Your task to perform on an android device: toggle translation in the chrome app Image 0: 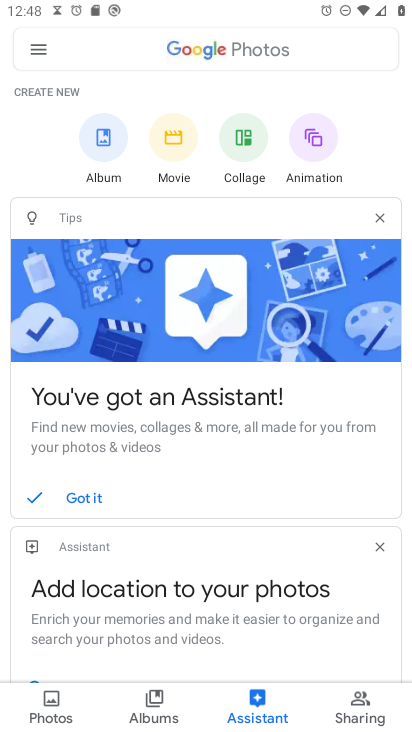
Step 0: press home button
Your task to perform on an android device: toggle translation in the chrome app Image 1: 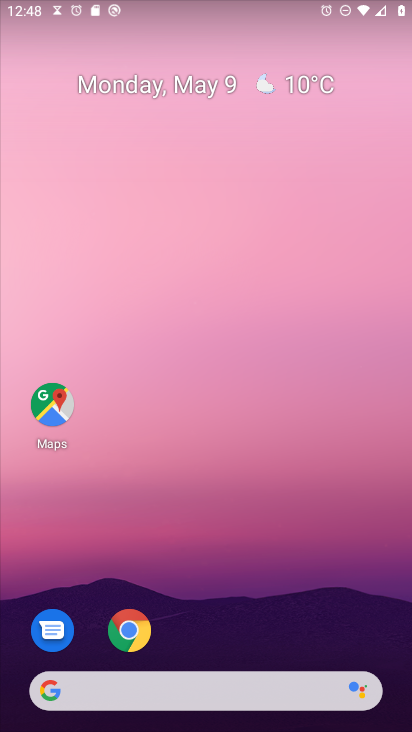
Step 1: drag from (177, 689) to (343, 218)
Your task to perform on an android device: toggle translation in the chrome app Image 2: 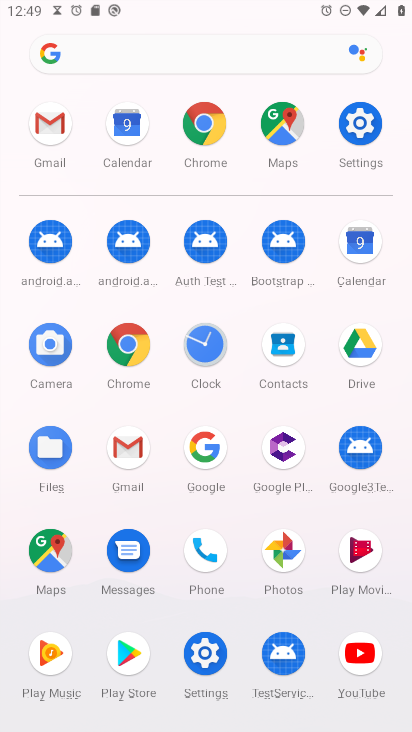
Step 2: click (142, 351)
Your task to perform on an android device: toggle translation in the chrome app Image 3: 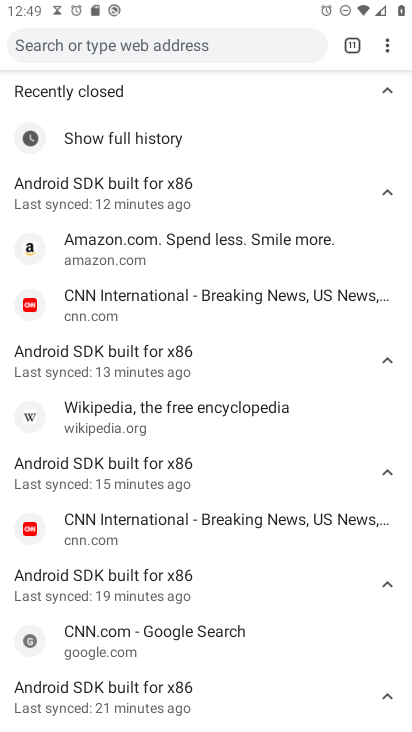
Step 3: drag from (384, 48) to (234, 390)
Your task to perform on an android device: toggle translation in the chrome app Image 4: 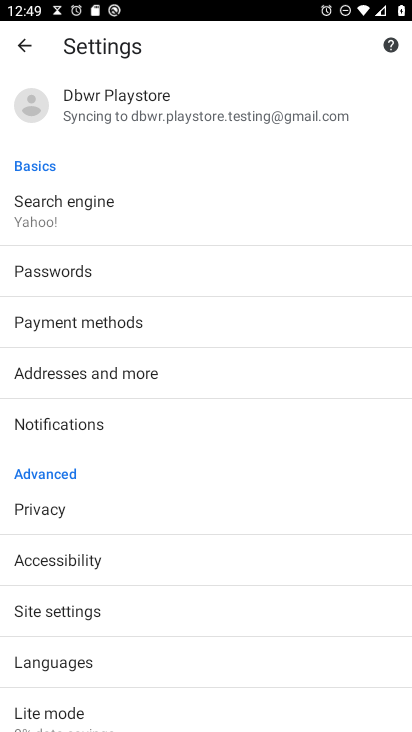
Step 4: click (67, 663)
Your task to perform on an android device: toggle translation in the chrome app Image 5: 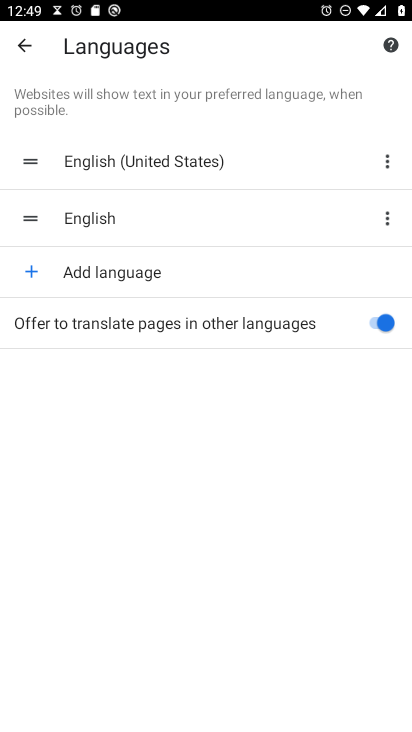
Step 5: click (377, 322)
Your task to perform on an android device: toggle translation in the chrome app Image 6: 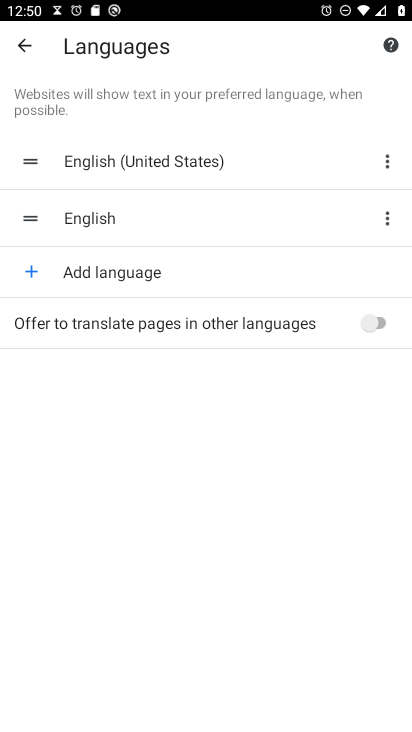
Step 6: task complete